Your task to perform on an android device: Go to calendar. Show me events next week Image 0: 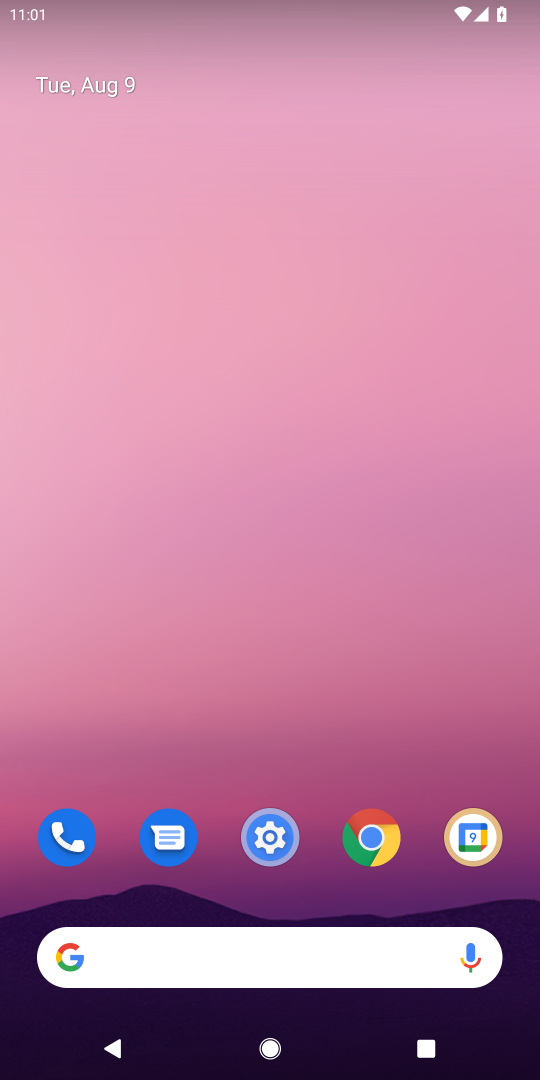
Step 0: drag from (319, 907) to (319, 142)
Your task to perform on an android device: Go to calendar. Show me events next week Image 1: 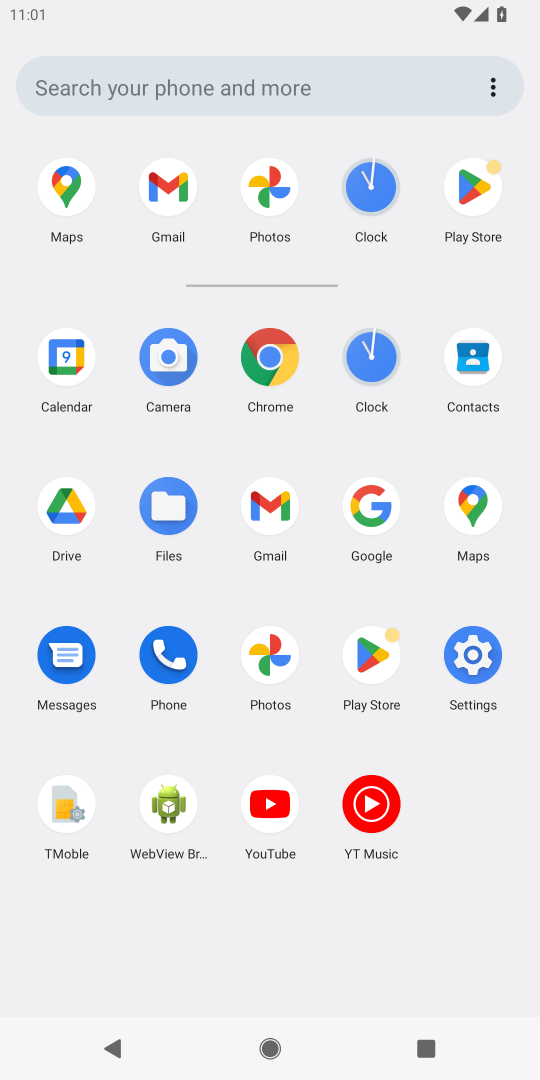
Step 1: click (59, 364)
Your task to perform on an android device: Go to calendar. Show me events next week Image 2: 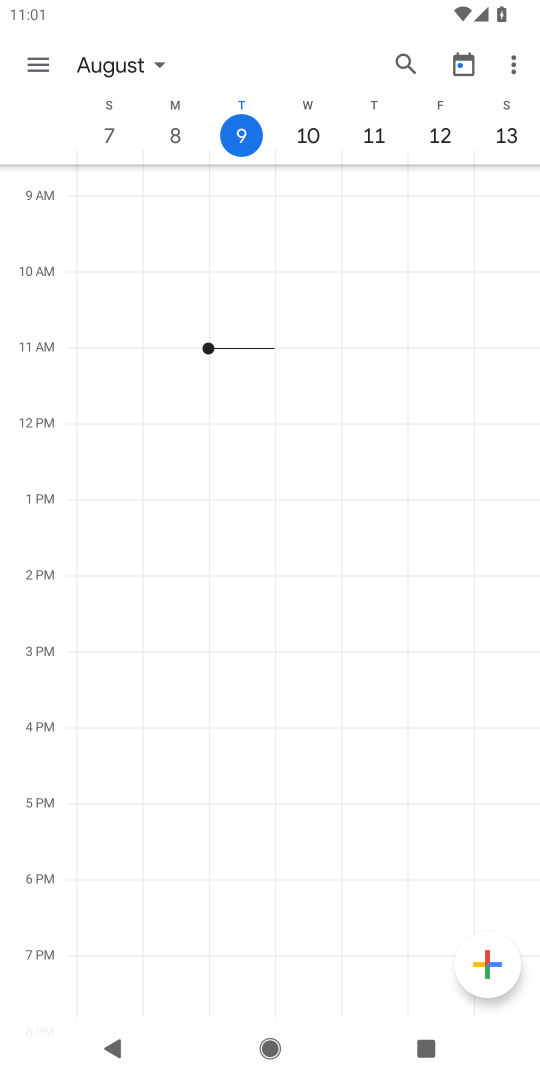
Step 2: drag from (512, 139) to (318, 123)
Your task to perform on an android device: Go to calendar. Show me events next week Image 3: 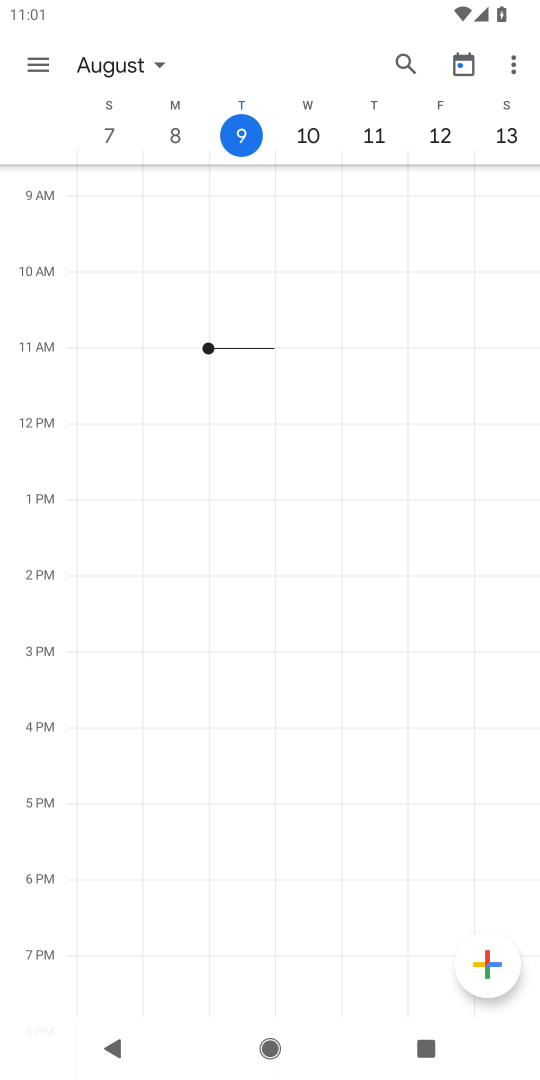
Step 3: drag from (513, 130) to (89, 138)
Your task to perform on an android device: Go to calendar. Show me events next week Image 4: 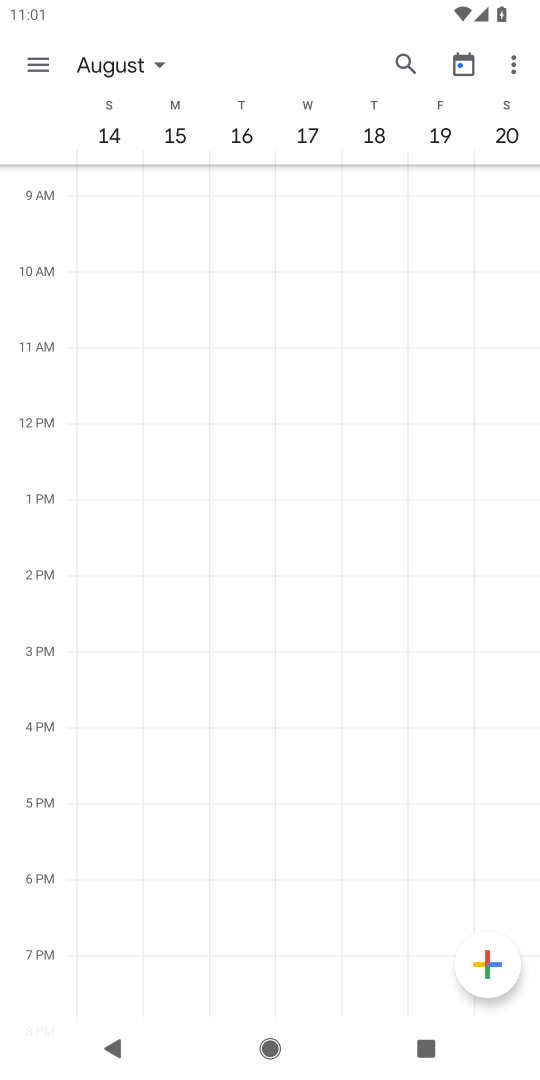
Step 4: click (166, 124)
Your task to perform on an android device: Go to calendar. Show me events next week Image 5: 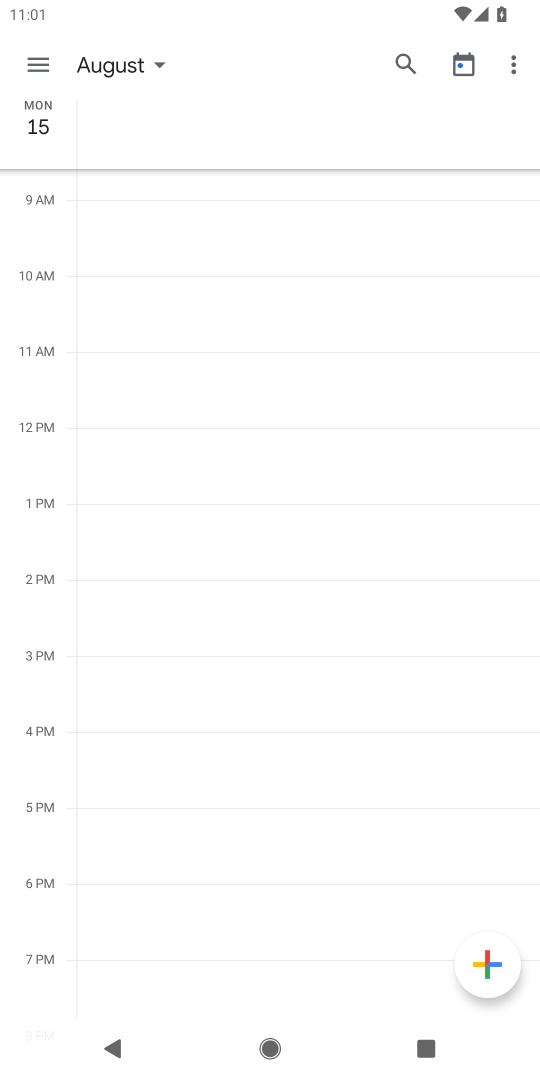
Step 5: click (43, 56)
Your task to perform on an android device: Go to calendar. Show me events next week Image 6: 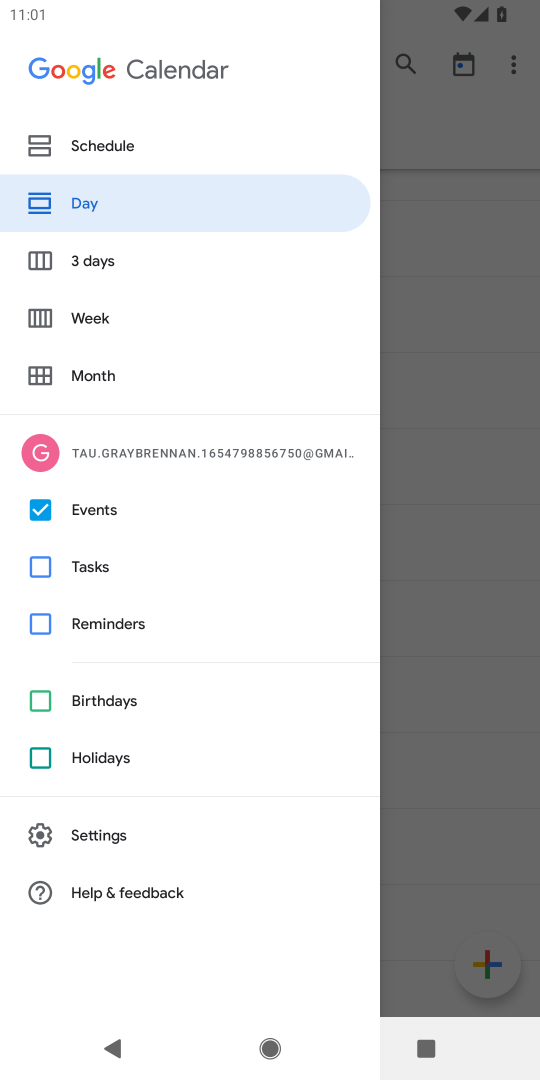
Step 6: click (100, 318)
Your task to perform on an android device: Go to calendar. Show me events next week Image 7: 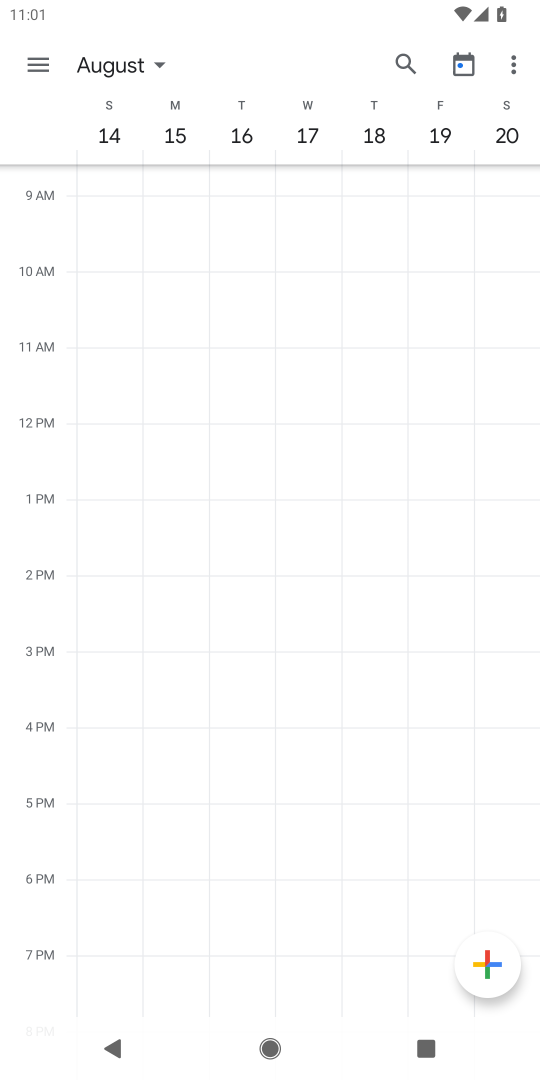
Step 7: task complete